Your task to perform on an android device: Go to internet settings Image 0: 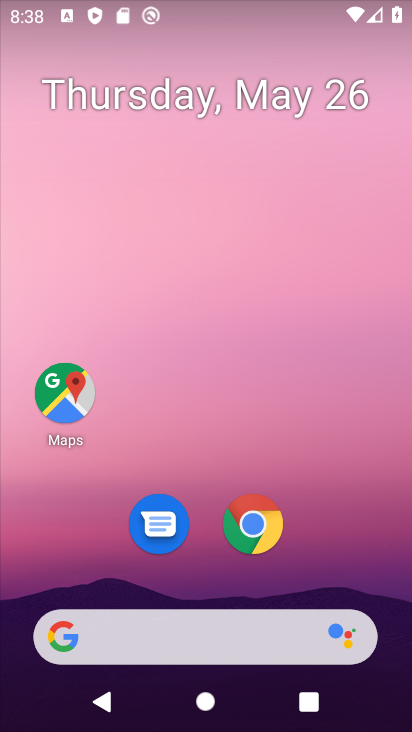
Step 0: drag from (330, 478) to (247, 23)
Your task to perform on an android device: Go to internet settings Image 1: 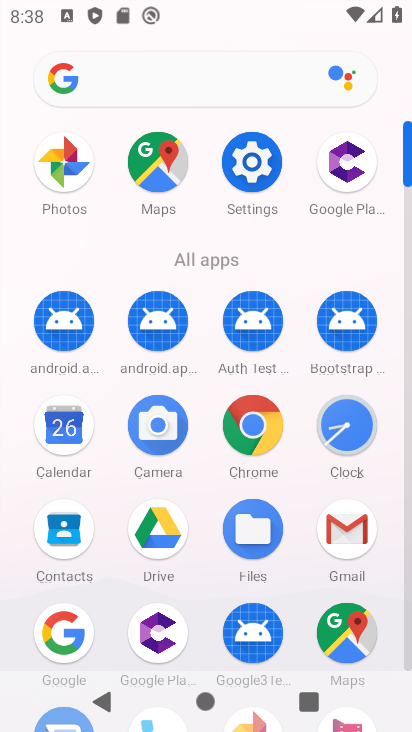
Step 1: click (247, 142)
Your task to perform on an android device: Go to internet settings Image 2: 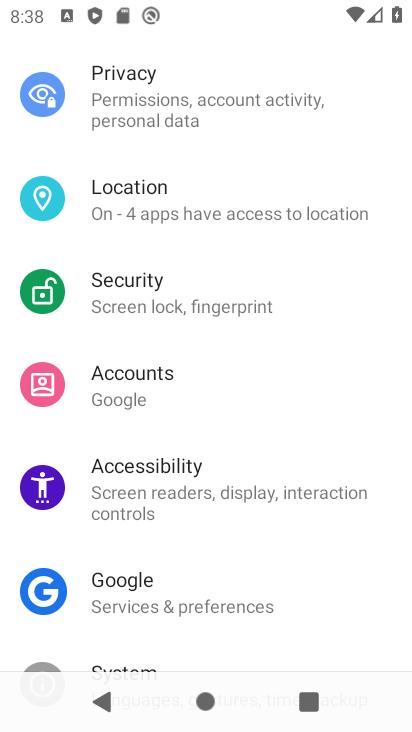
Step 2: drag from (248, 161) to (321, 664)
Your task to perform on an android device: Go to internet settings Image 3: 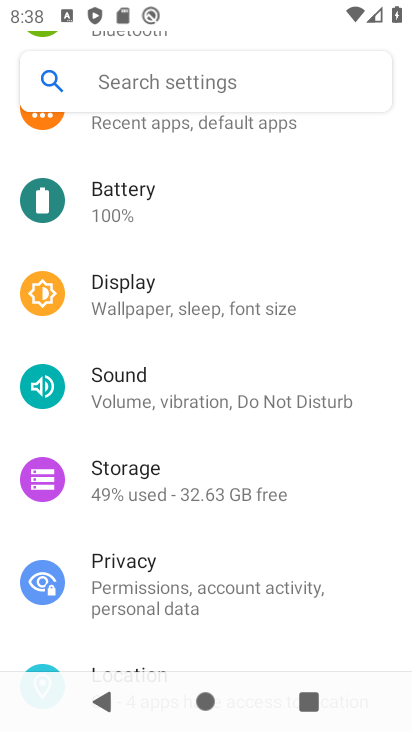
Step 3: drag from (241, 242) to (286, 640)
Your task to perform on an android device: Go to internet settings Image 4: 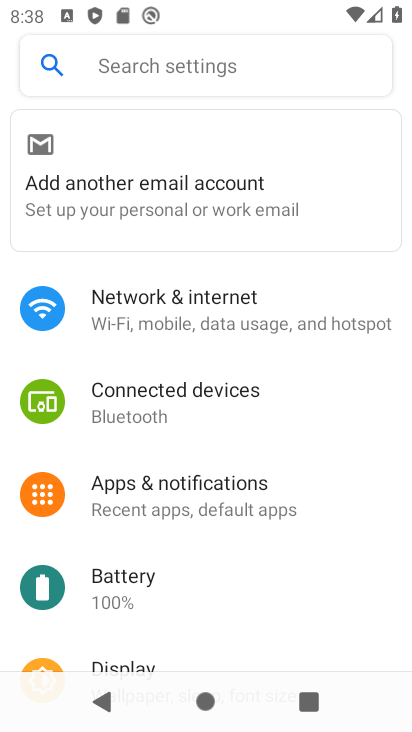
Step 4: click (209, 304)
Your task to perform on an android device: Go to internet settings Image 5: 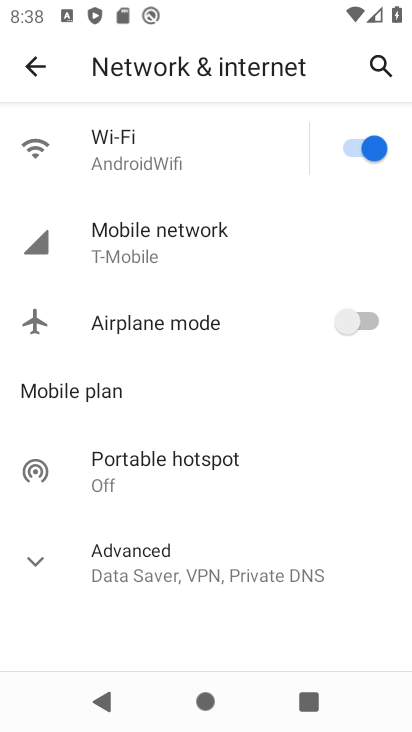
Step 5: task complete